Your task to perform on an android device: Turn off the flashlight Image 0: 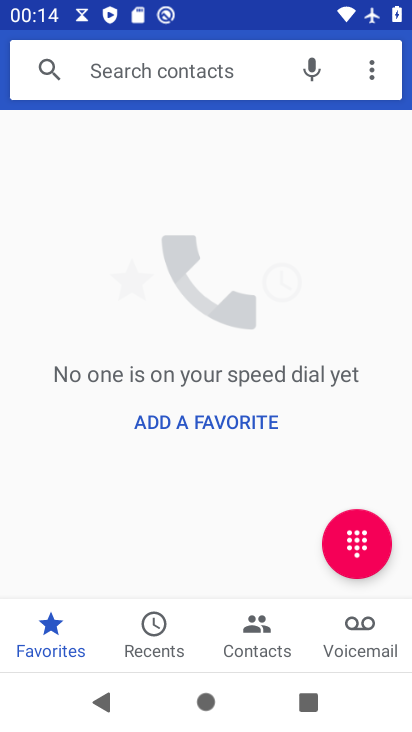
Step 0: press home button
Your task to perform on an android device: Turn off the flashlight Image 1: 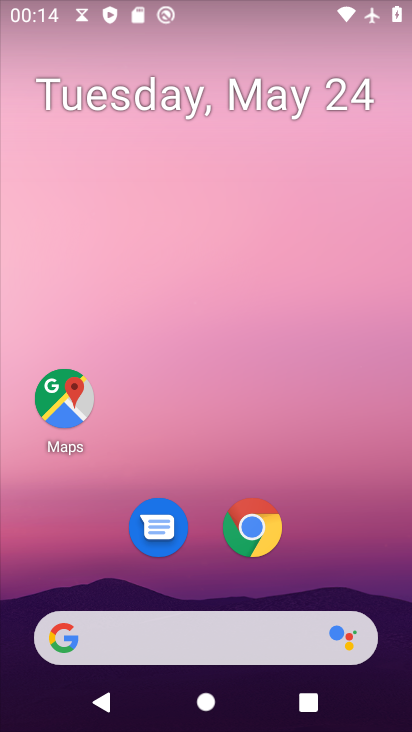
Step 1: task complete